Your task to perform on an android device: turn on wifi Image 0: 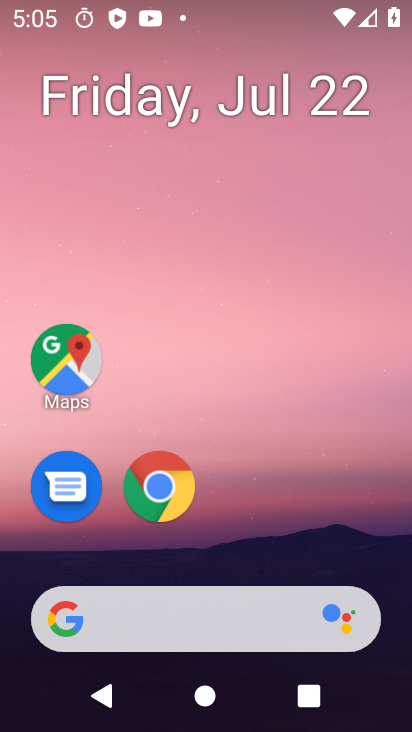
Step 0: drag from (380, 525) to (301, 163)
Your task to perform on an android device: turn on wifi Image 1: 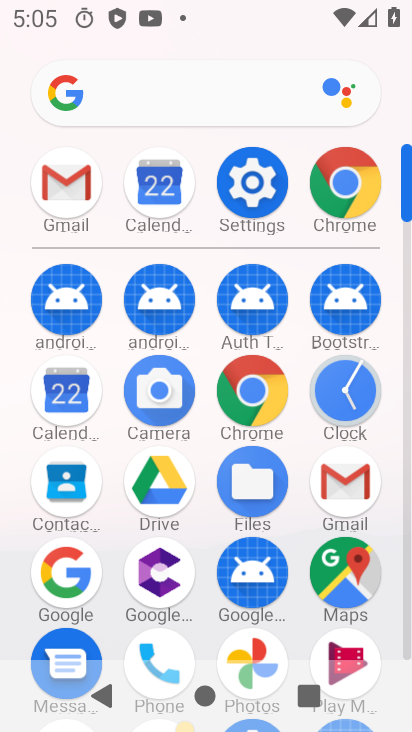
Step 1: click (265, 173)
Your task to perform on an android device: turn on wifi Image 2: 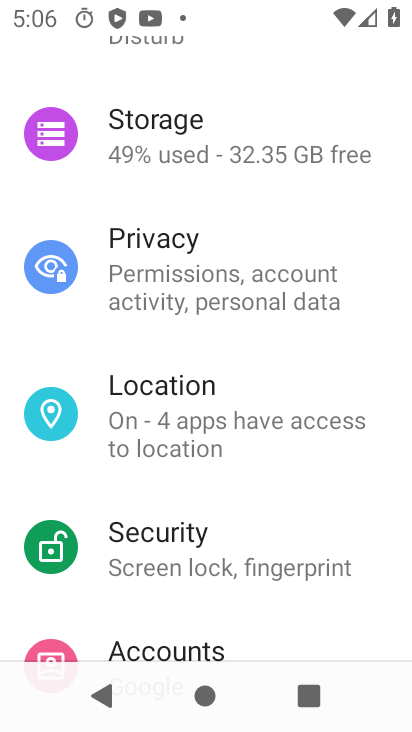
Step 2: drag from (265, 237) to (264, 537)
Your task to perform on an android device: turn on wifi Image 3: 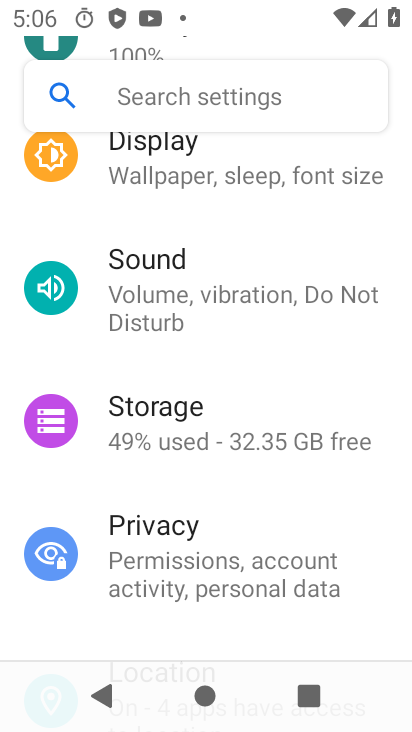
Step 3: drag from (244, 222) to (240, 542)
Your task to perform on an android device: turn on wifi Image 4: 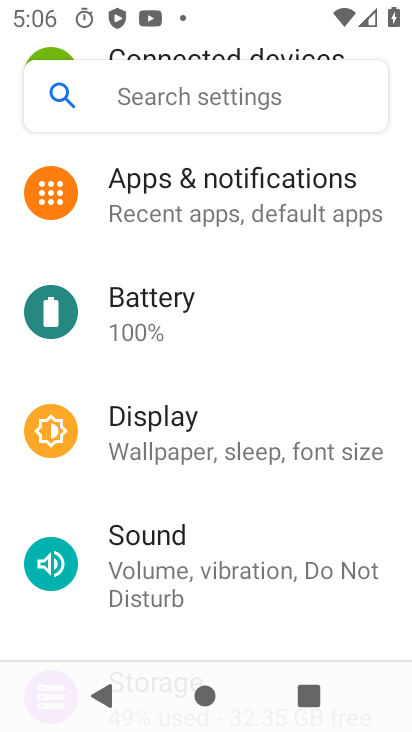
Step 4: drag from (239, 247) to (360, 716)
Your task to perform on an android device: turn on wifi Image 5: 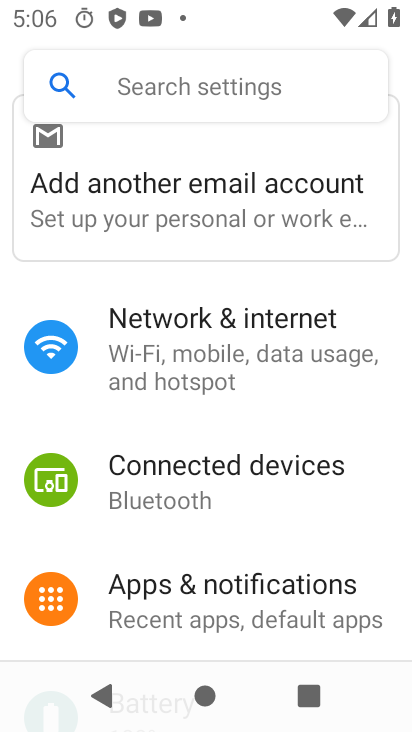
Step 5: click (279, 350)
Your task to perform on an android device: turn on wifi Image 6: 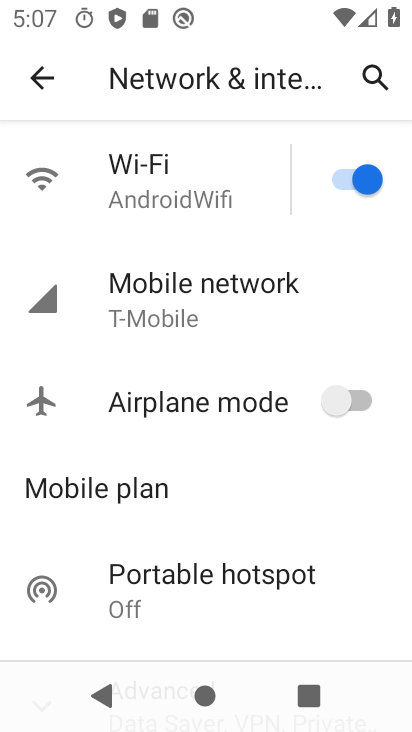
Step 6: task complete